Your task to perform on an android device: Is it going to rain this weekend? Image 0: 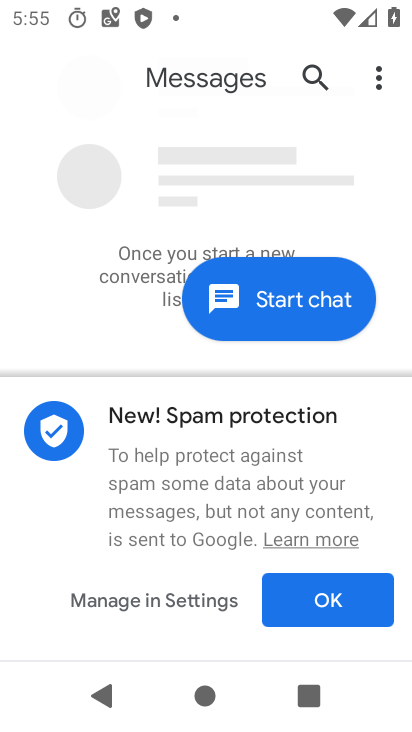
Step 0: press home button
Your task to perform on an android device: Is it going to rain this weekend? Image 1: 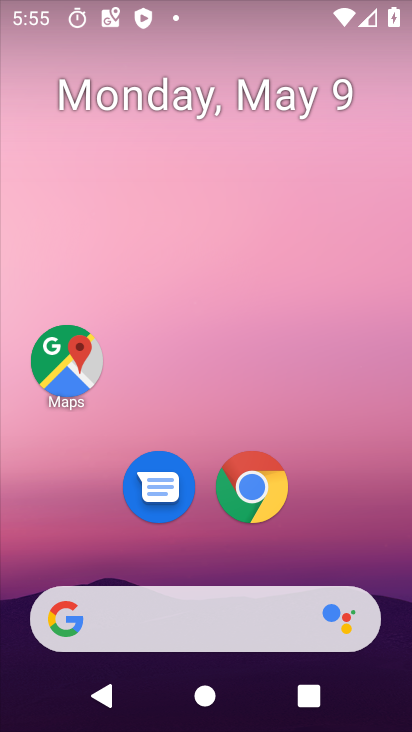
Step 1: click (255, 522)
Your task to perform on an android device: Is it going to rain this weekend? Image 2: 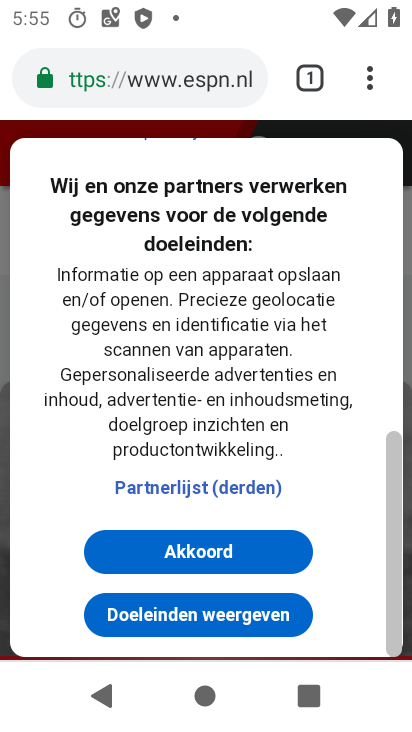
Step 2: press home button
Your task to perform on an android device: Is it going to rain this weekend? Image 3: 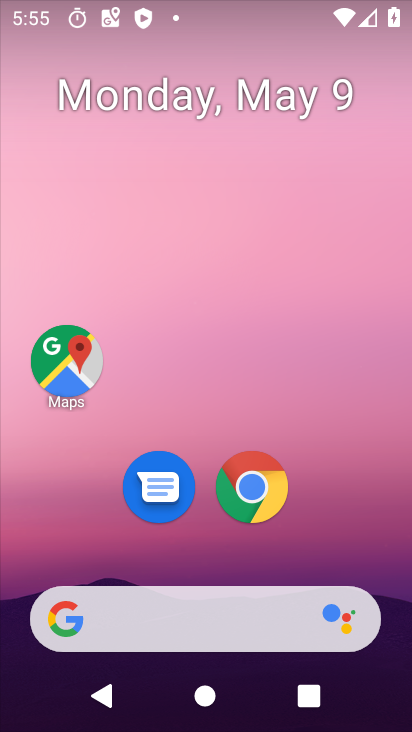
Step 3: drag from (277, 528) to (282, 157)
Your task to perform on an android device: Is it going to rain this weekend? Image 4: 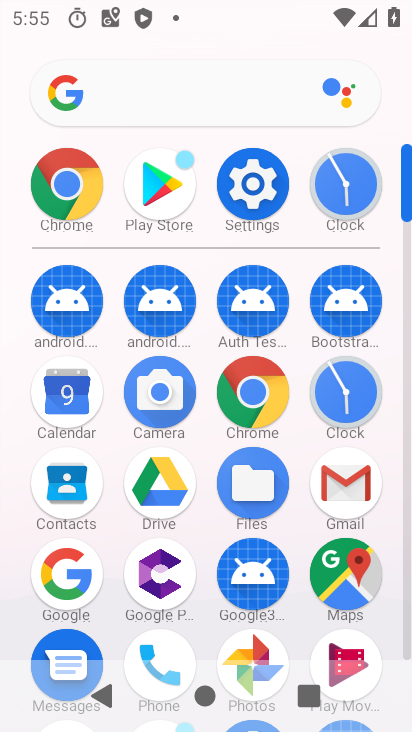
Step 4: drag from (102, 622) to (163, 211)
Your task to perform on an android device: Is it going to rain this weekend? Image 5: 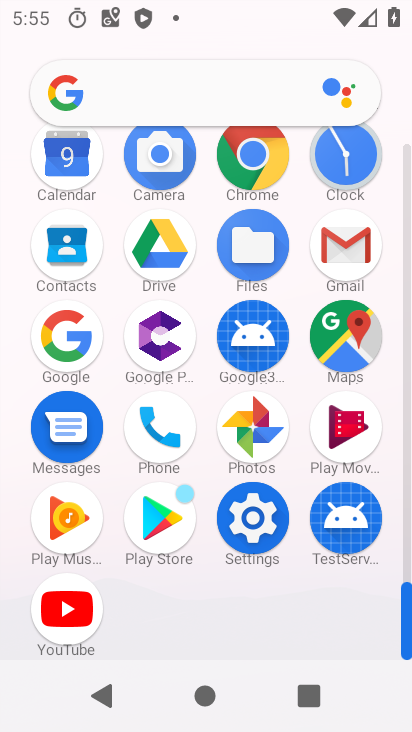
Step 5: click (72, 345)
Your task to perform on an android device: Is it going to rain this weekend? Image 6: 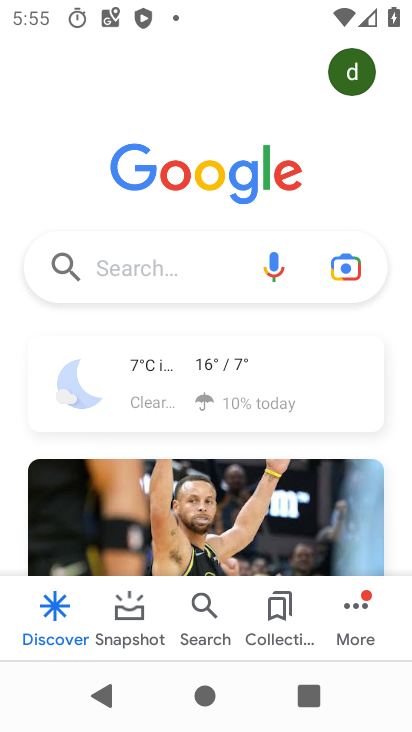
Step 6: click (144, 277)
Your task to perform on an android device: Is it going to rain this weekend? Image 7: 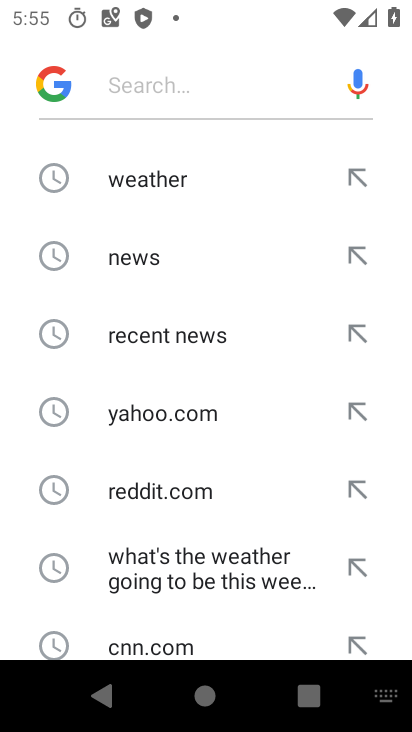
Step 7: click (150, 188)
Your task to perform on an android device: Is it going to rain this weekend? Image 8: 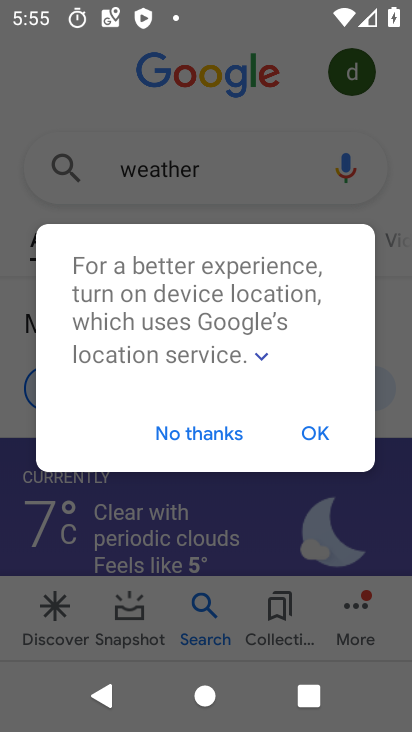
Step 8: click (189, 445)
Your task to perform on an android device: Is it going to rain this weekend? Image 9: 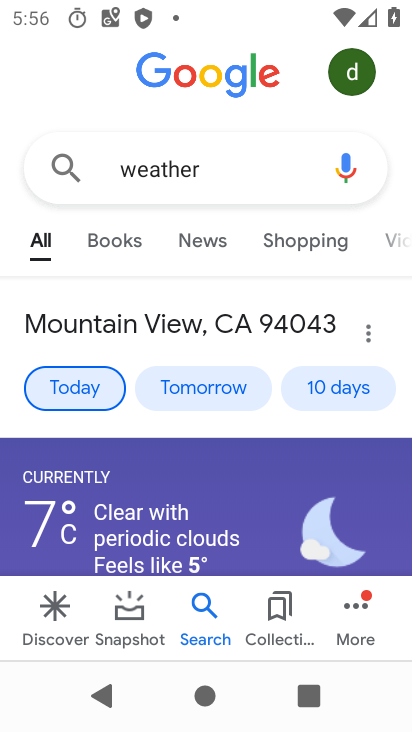
Step 9: click (318, 387)
Your task to perform on an android device: Is it going to rain this weekend? Image 10: 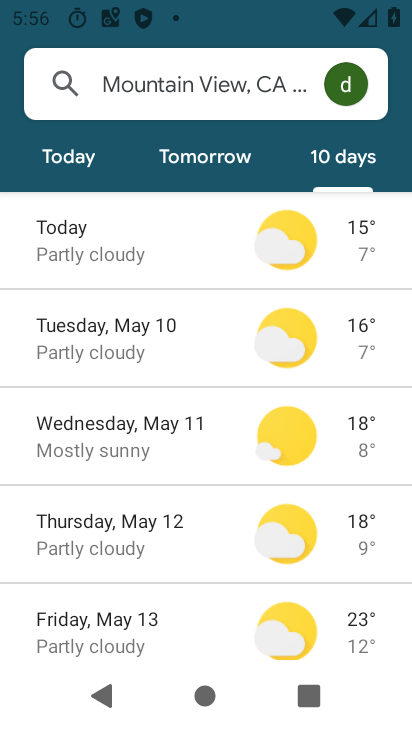
Step 10: task complete